Your task to perform on an android device: Go to eBay Image 0: 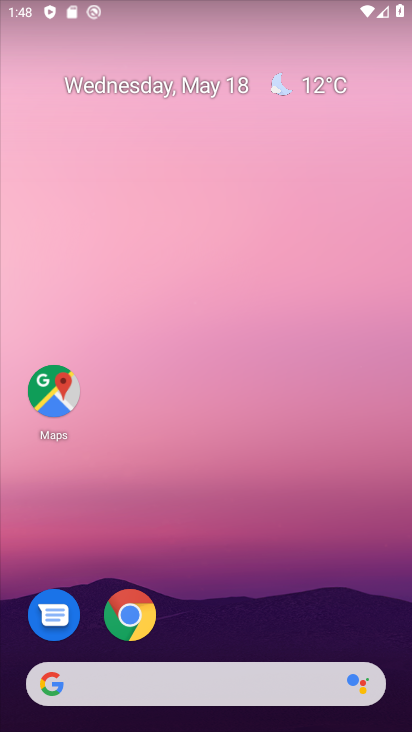
Step 0: drag from (344, 622) to (253, 19)
Your task to perform on an android device: Go to eBay Image 1: 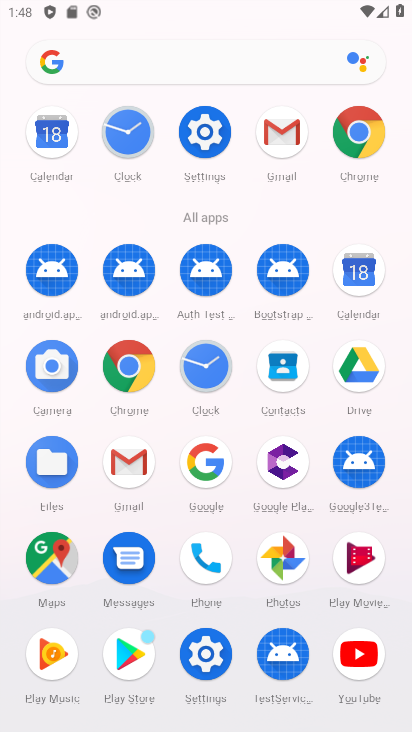
Step 1: click (205, 461)
Your task to perform on an android device: Go to eBay Image 2: 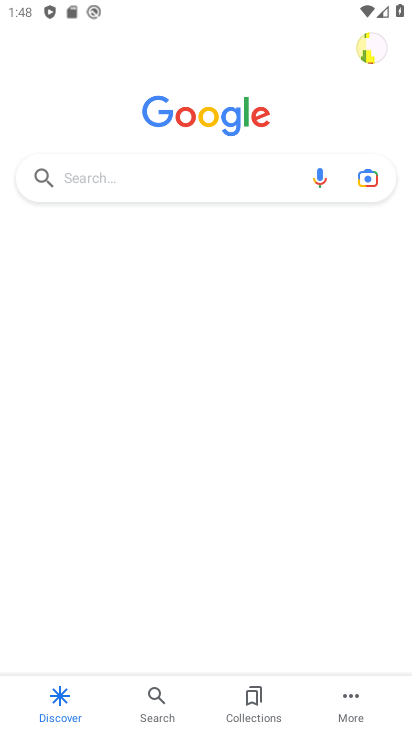
Step 2: click (111, 182)
Your task to perform on an android device: Go to eBay Image 3: 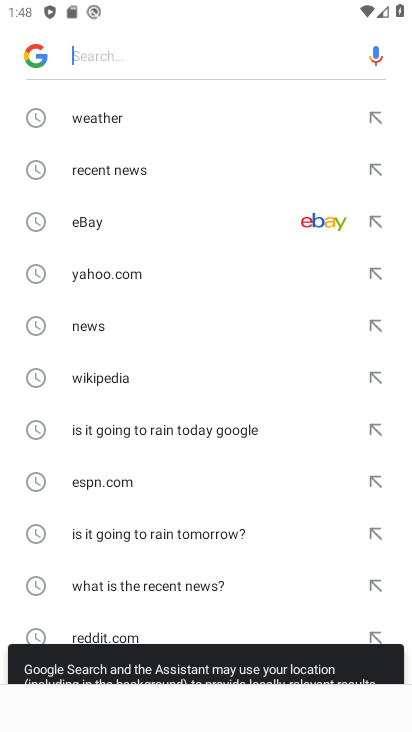
Step 3: click (97, 226)
Your task to perform on an android device: Go to eBay Image 4: 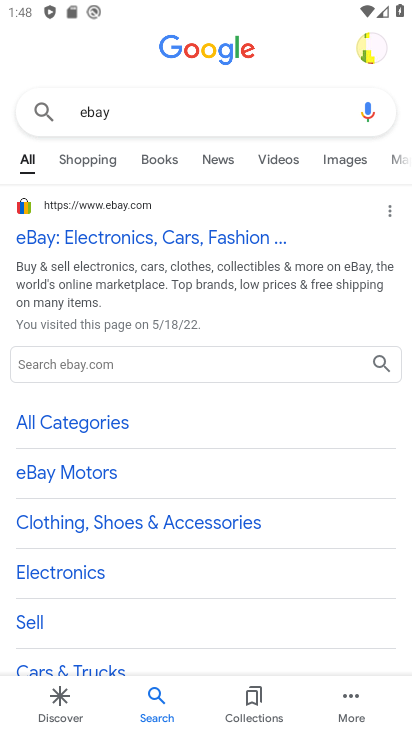
Step 4: task complete